Your task to perform on an android device: open device folders in google photos Image 0: 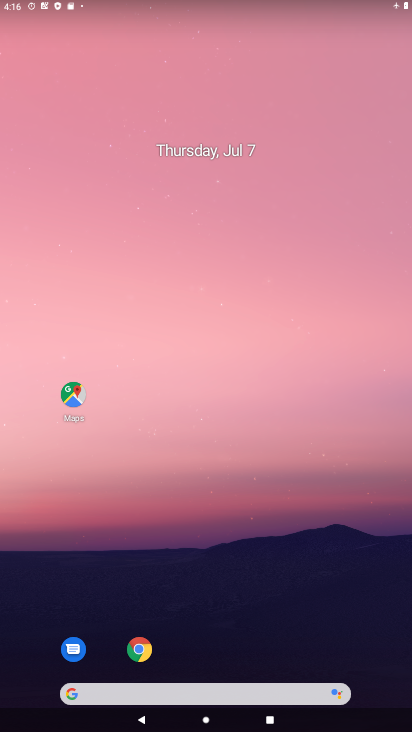
Step 0: drag from (379, 662) to (201, 1)
Your task to perform on an android device: open device folders in google photos Image 1: 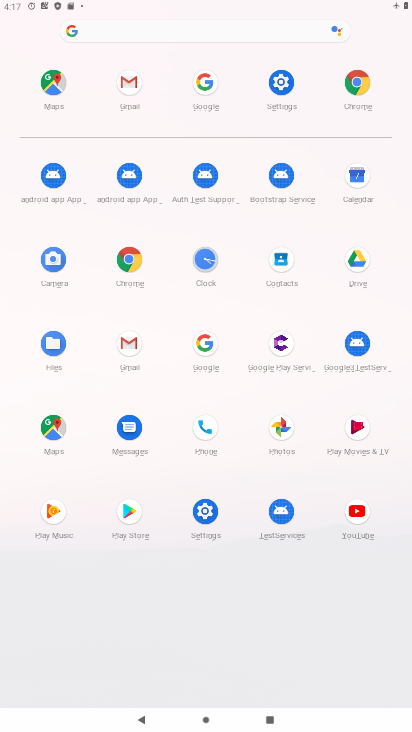
Step 1: click (288, 418)
Your task to perform on an android device: open device folders in google photos Image 2: 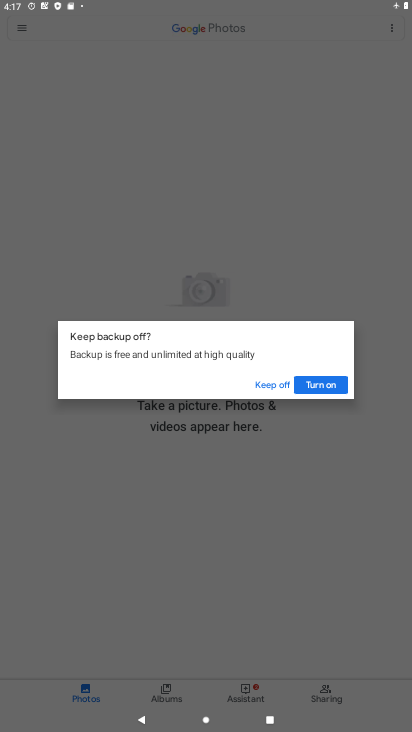
Step 2: press back button
Your task to perform on an android device: open device folders in google photos Image 3: 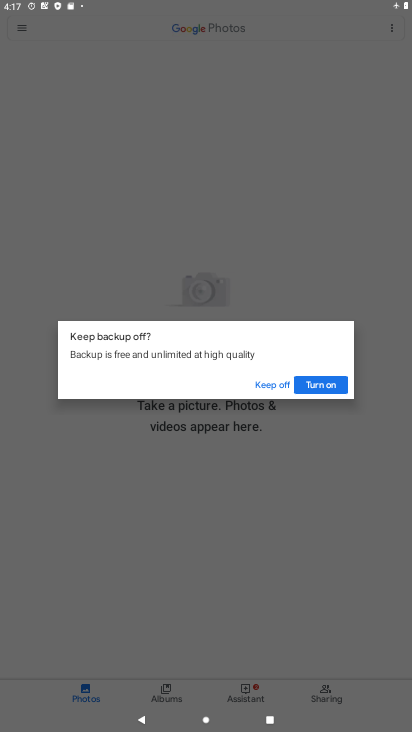
Step 3: press back button
Your task to perform on an android device: open device folders in google photos Image 4: 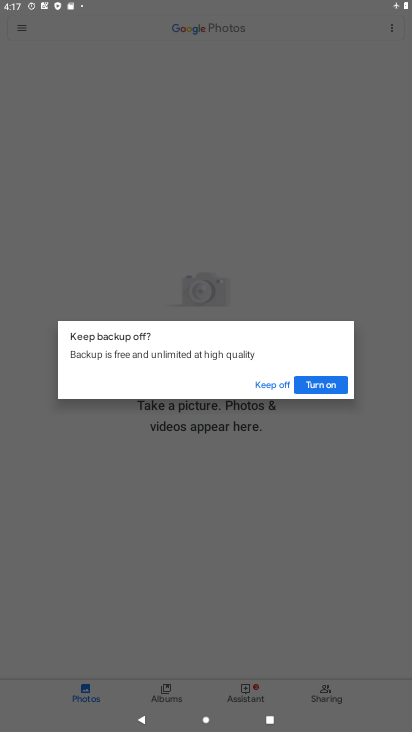
Step 4: click (325, 380)
Your task to perform on an android device: open device folders in google photos Image 5: 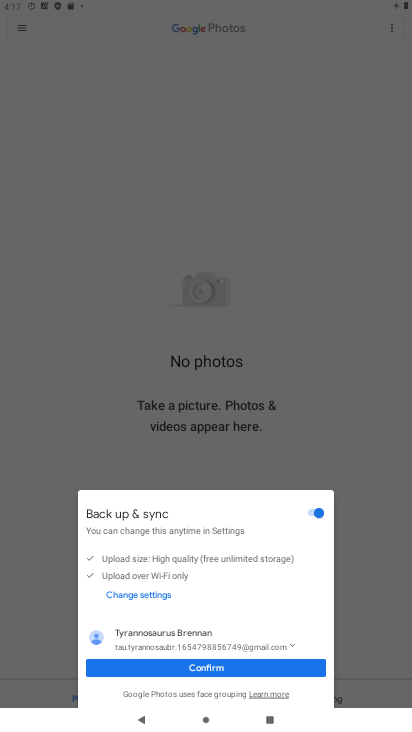
Step 5: click (200, 670)
Your task to perform on an android device: open device folders in google photos Image 6: 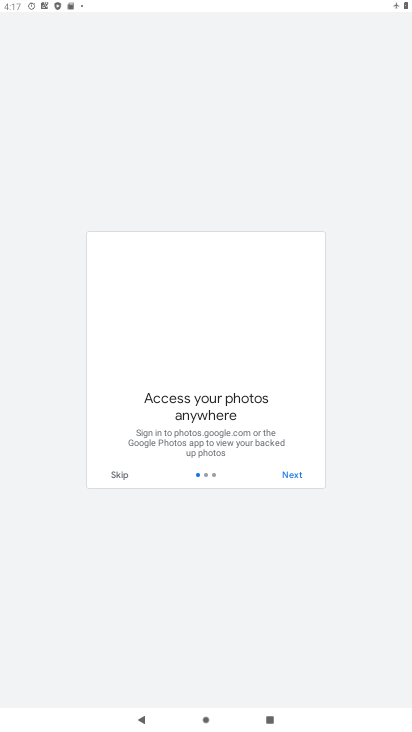
Step 6: click (297, 479)
Your task to perform on an android device: open device folders in google photos Image 7: 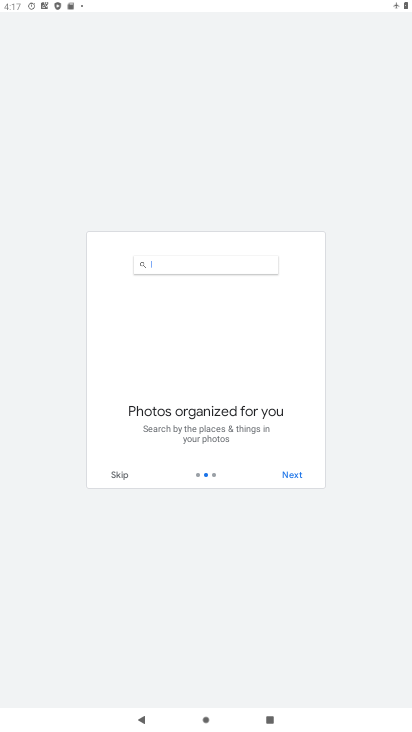
Step 7: click (297, 479)
Your task to perform on an android device: open device folders in google photos Image 8: 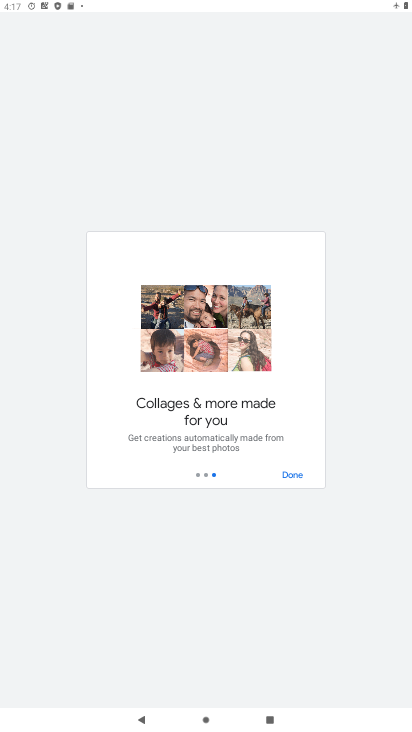
Step 8: click (297, 479)
Your task to perform on an android device: open device folders in google photos Image 9: 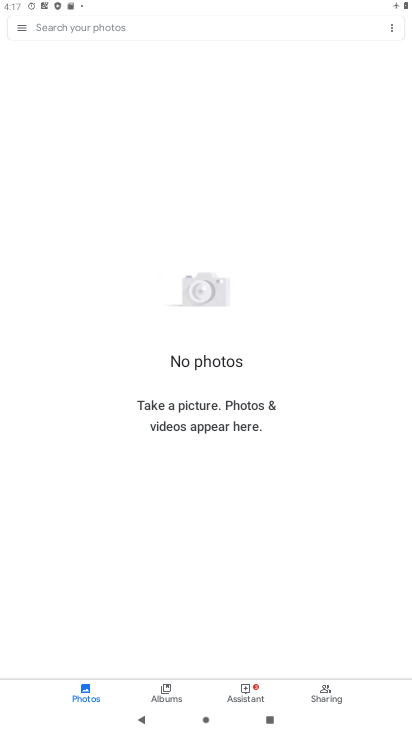
Step 9: click (6, 23)
Your task to perform on an android device: open device folders in google photos Image 10: 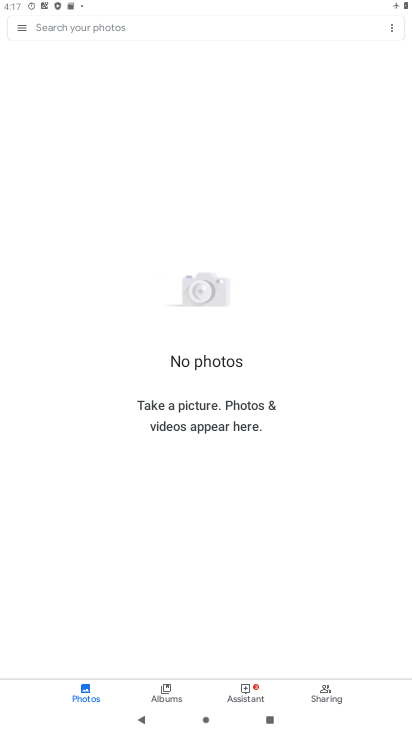
Step 10: click (16, 23)
Your task to perform on an android device: open device folders in google photos Image 11: 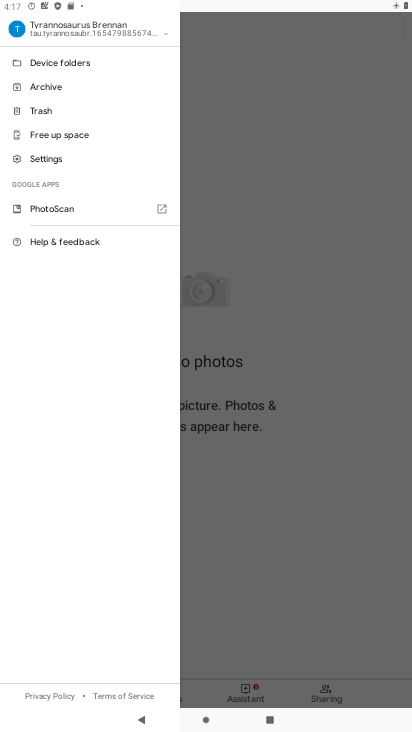
Step 11: click (102, 62)
Your task to perform on an android device: open device folders in google photos Image 12: 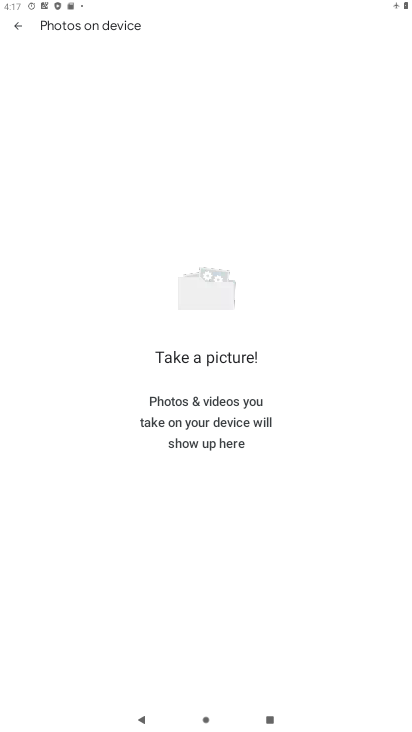
Step 12: task complete